Your task to perform on an android device: toggle pop-ups in chrome Image 0: 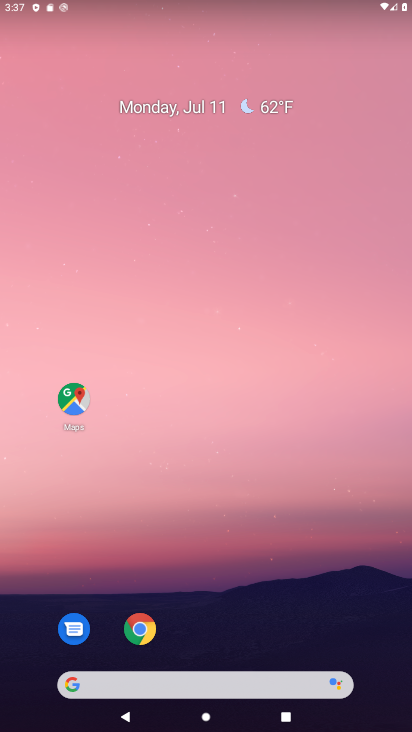
Step 0: click (147, 631)
Your task to perform on an android device: toggle pop-ups in chrome Image 1: 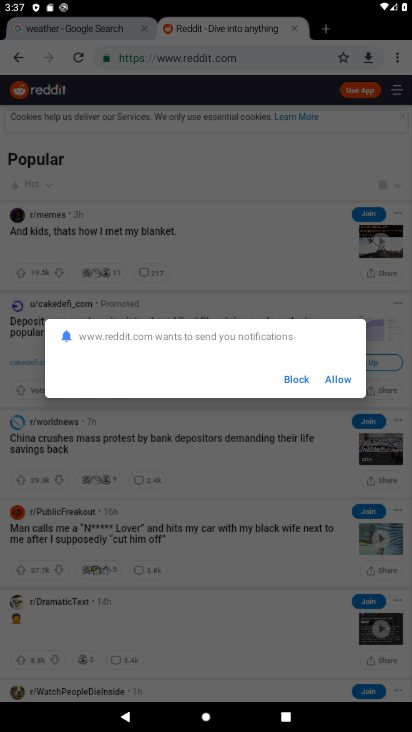
Step 1: click (345, 380)
Your task to perform on an android device: toggle pop-ups in chrome Image 2: 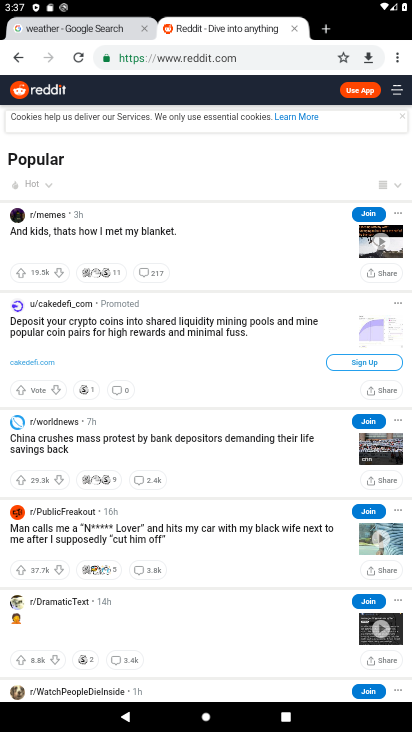
Step 2: click (396, 62)
Your task to perform on an android device: toggle pop-ups in chrome Image 3: 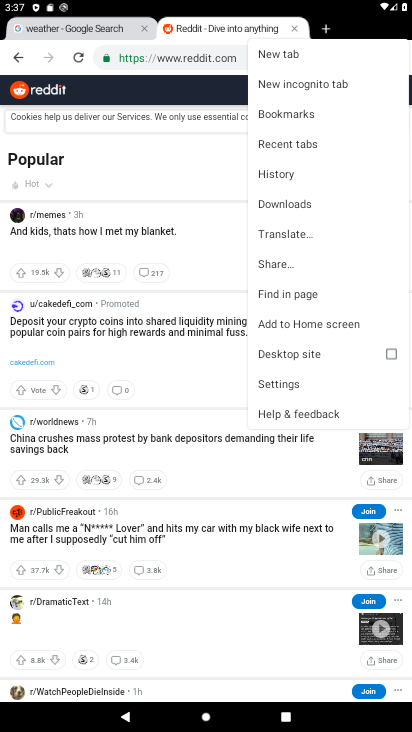
Step 3: click (284, 377)
Your task to perform on an android device: toggle pop-ups in chrome Image 4: 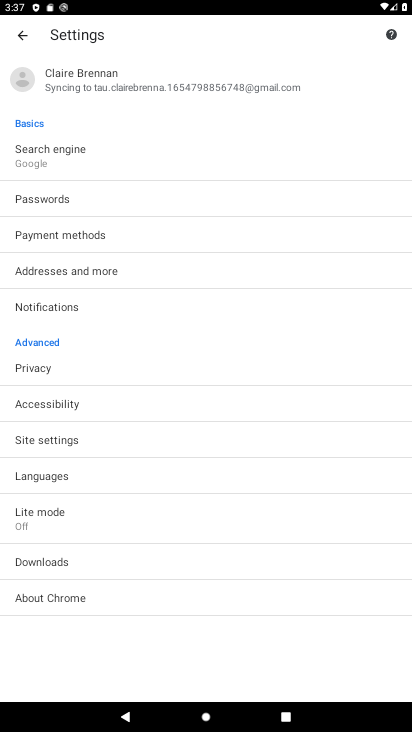
Step 4: click (57, 440)
Your task to perform on an android device: toggle pop-ups in chrome Image 5: 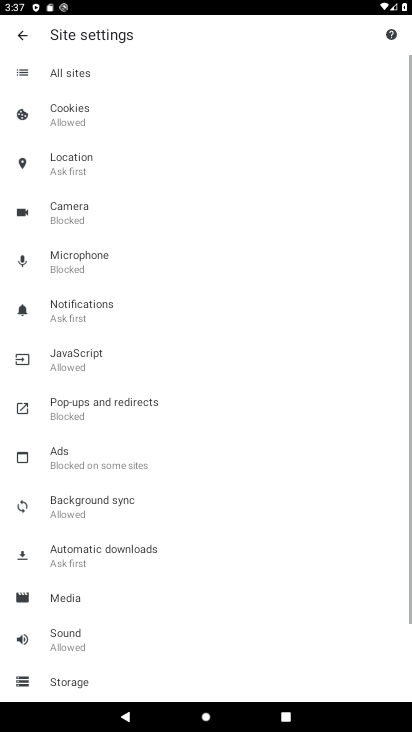
Step 5: click (154, 413)
Your task to perform on an android device: toggle pop-ups in chrome Image 6: 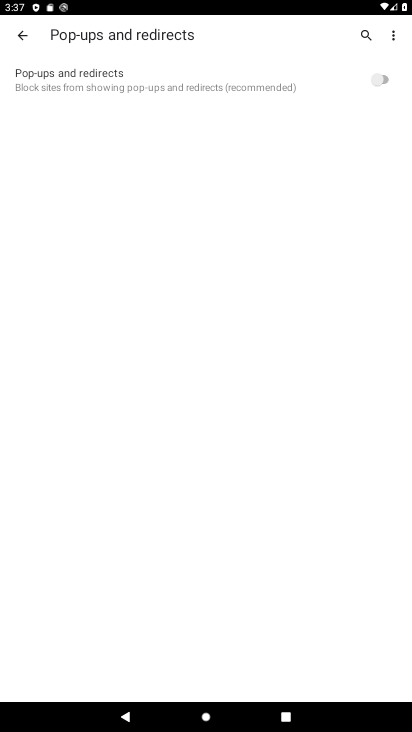
Step 6: click (379, 79)
Your task to perform on an android device: toggle pop-ups in chrome Image 7: 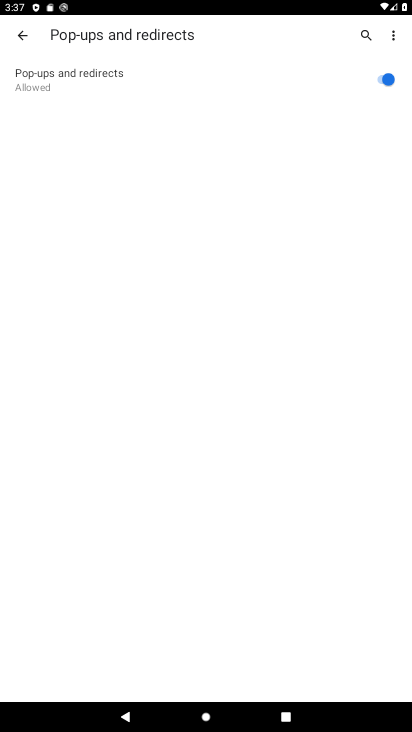
Step 7: task complete